Your task to perform on an android device: refresh tabs in the chrome app Image 0: 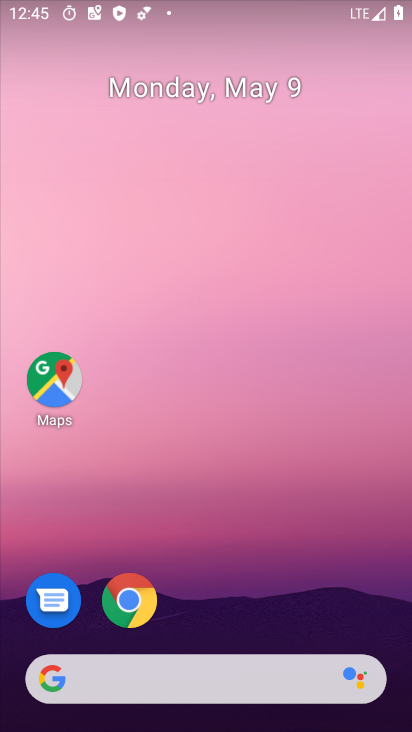
Step 0: drag from (273, 625) to (290, 124)
Your task to perform on an android device: refresh tabs in the chrome app Image 1: 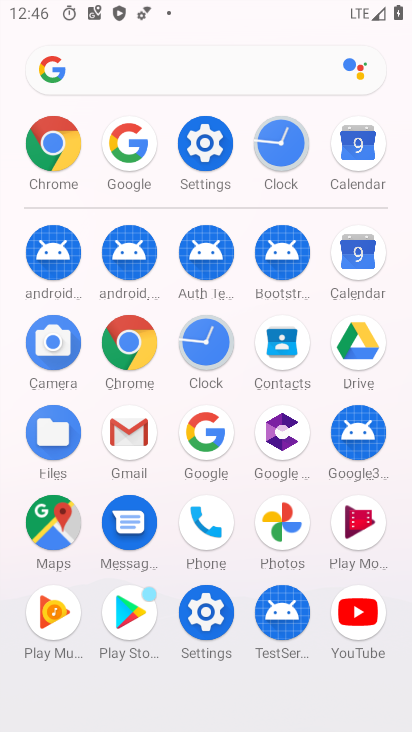
Step 1: click (139, 358)
Your task to perform on an android device: refresh tabs in the chrome app Image 2: 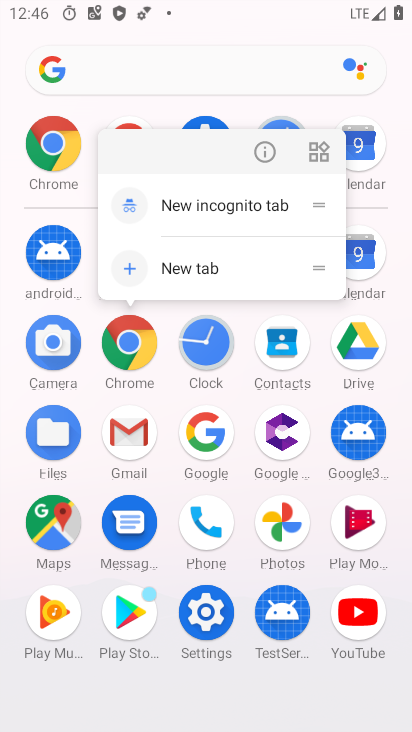
Step 2: click (123, 355)
Your task to perform on an android device: refresh tabs in the chrome app Image 3: 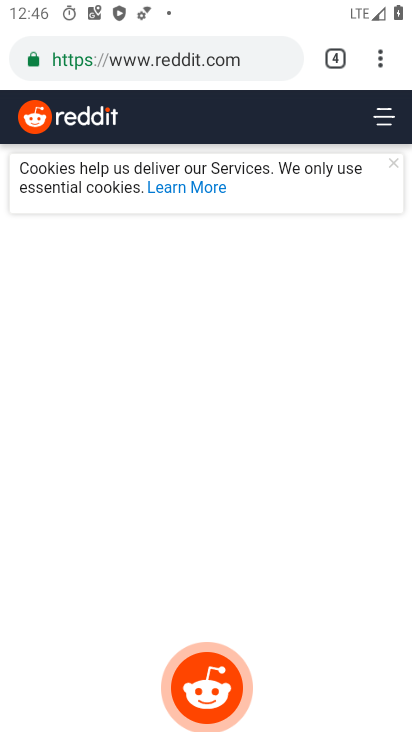
Step 3: click (375, 55)
Your task to perform on an android device: refresh tabs in the chrome app Image 4: 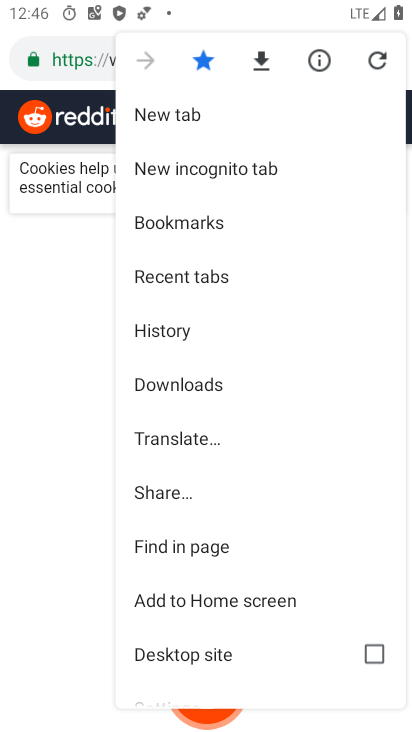
Step 4: click (378, 59)
Your task to perform on an android device: refresh tabs in the chrome app Image 5: 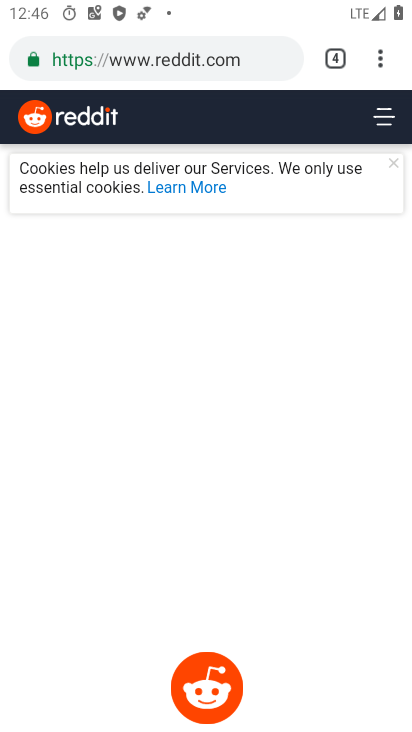
Step 5: task complete